Your task to perform on an android device: Open notification settings Image 0: 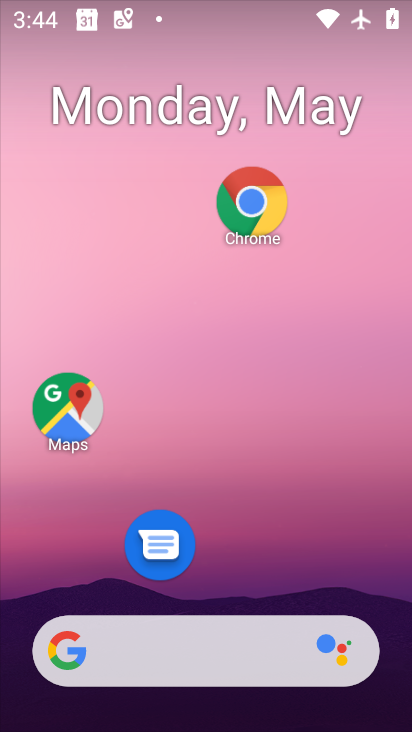
Step 0: drag from (213, 580) to (210, 180)
Your task to perform on an android device: Open notification settings Image 1: 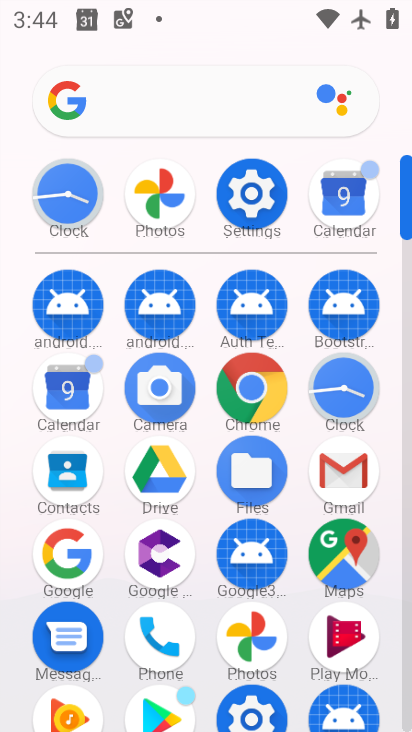
Step 1: click (229, 185)
Your task to perform on an android device: Open notification settings Image 2: 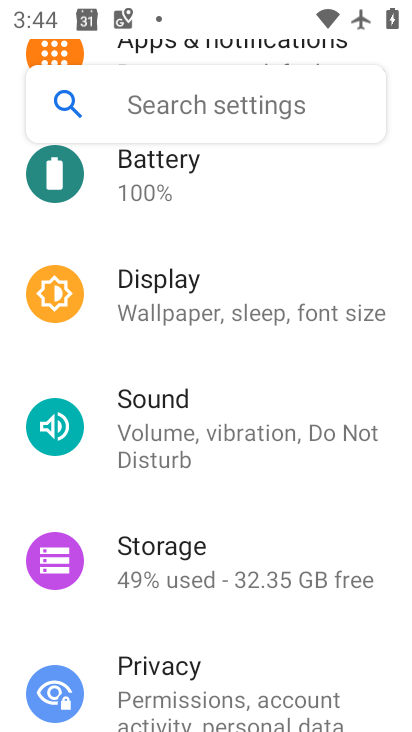
Step 2: drag from (234, 275) to (236, 538)
Your task to perform on an android device: Open notification settings Image 3: 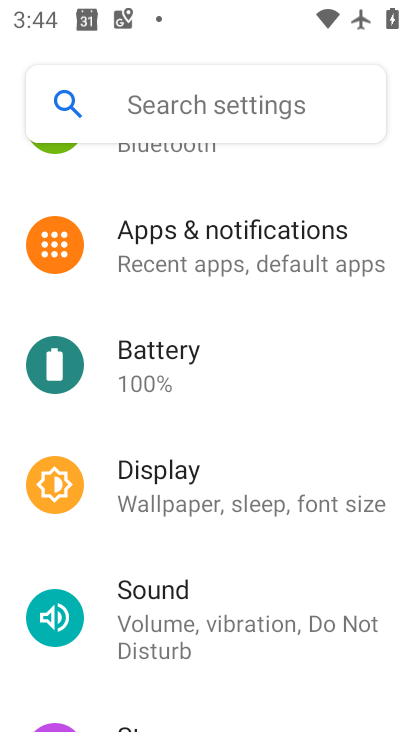
Step 3: click (240, 268)
Your task to perform on an android device: Open notification settings Image 4: 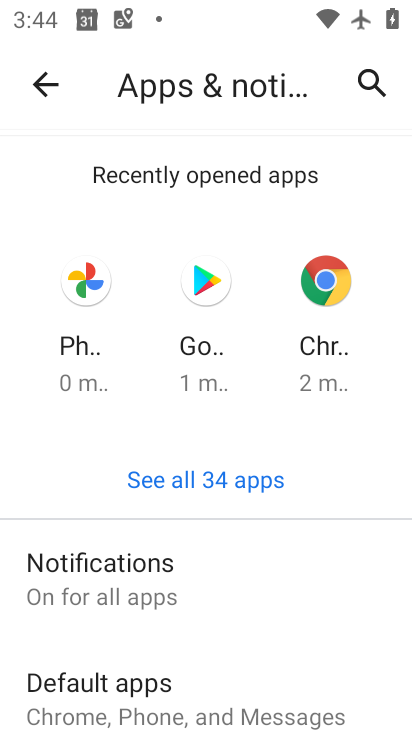
Step 4: drag from (238, 652) to (249, 367)
Your task to perform on an android device: Open notification settings Image 5: 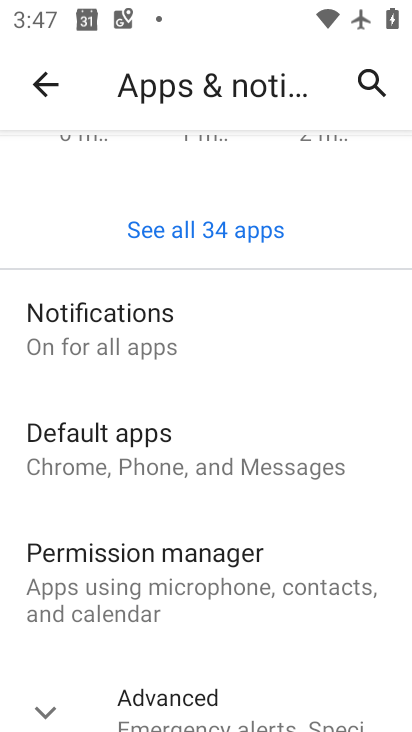
Step 5: click (113, 337)
Your task to perform on an android device: Open notification settings Image 6: 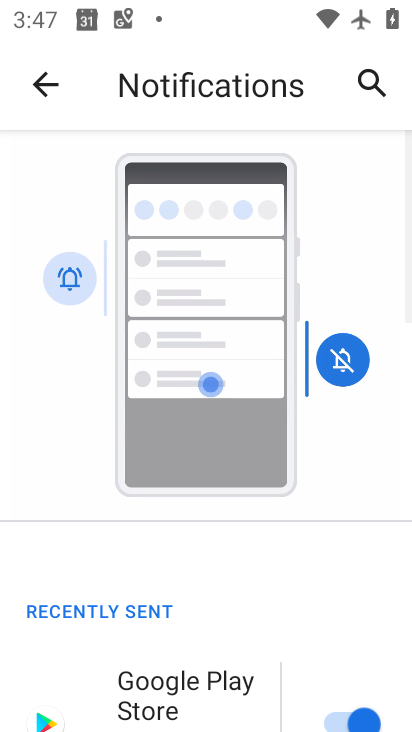
Step 6: task complete